Your task to perform on an android device: Open the stopwatch Image 0: 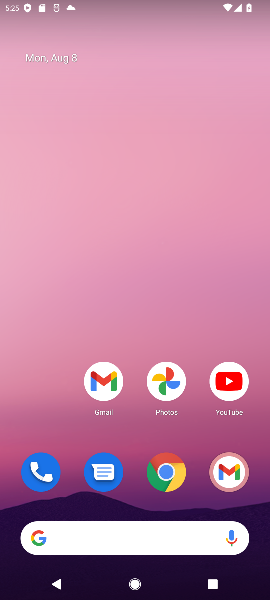
Step 0: press home button
Your task to perform on an android device: Open the stopwatch Image 1: 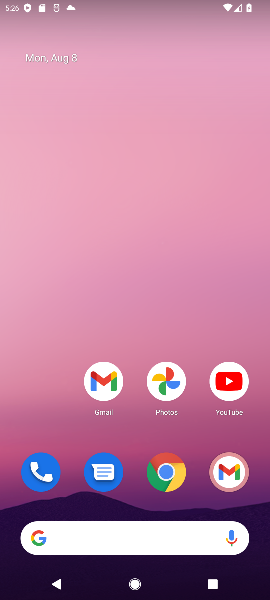
Step 1: drag from (145, 507) to (149, 117)
Your task to perform on an android device: Open the stopwatch Image 2: 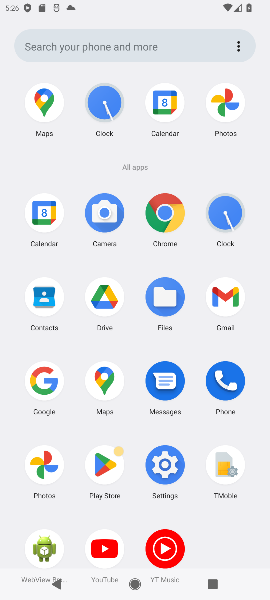
Step 2: click (94, 107)
Your task to perform on an android device: Open the stopwatch Image 3: 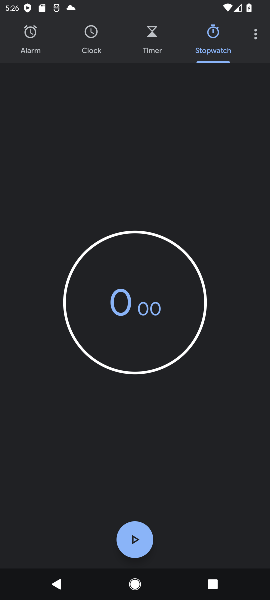
Step 3: click (212, 35)
Your task to perform on an android device: Open the stopwatch Image 4: 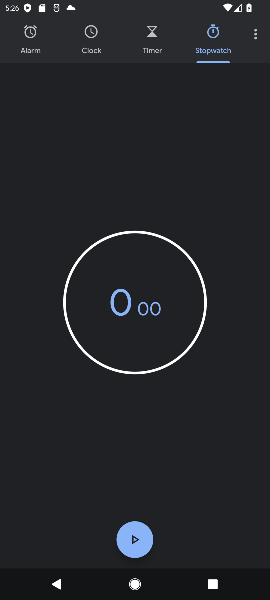
Step 4: task complete